Your task to perform on an android device: check out phone information Image 0: 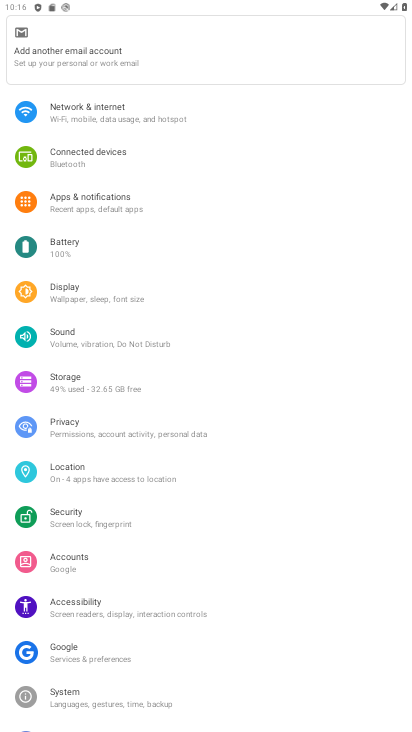
Step 0: drag from (144, 606) to (118, 292)
Your task to perform on an android device: check out phone information Image 1: 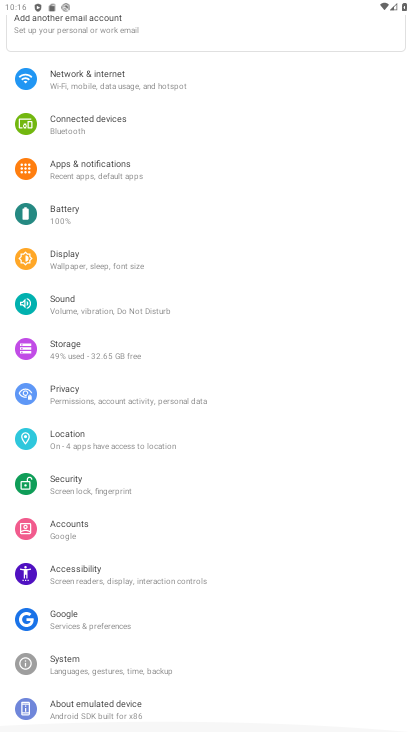
Step 1: task complete